Your task to perform on an android device: toggle sleep mode Image 0: 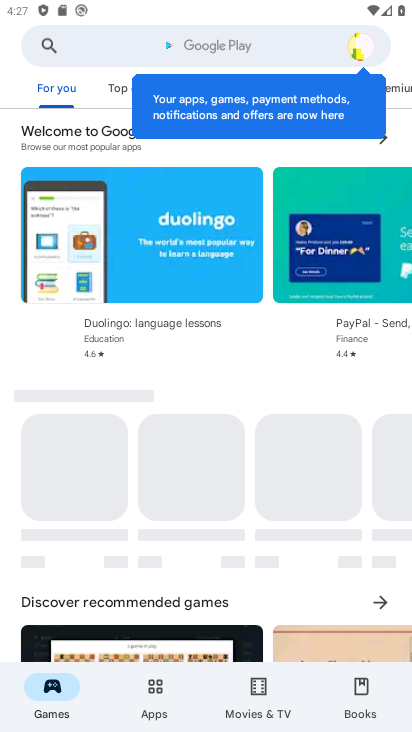
Step 0: press back button
Your task to perform on an android device: toggle sleep mode Image 1: 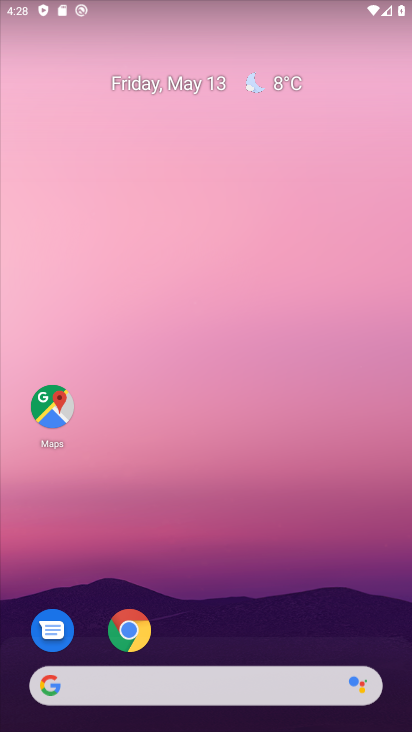
Step 1: drag from (163, 656) to (272, 172)
Your task to perform on an android device: toggle sleep mode Image 2: 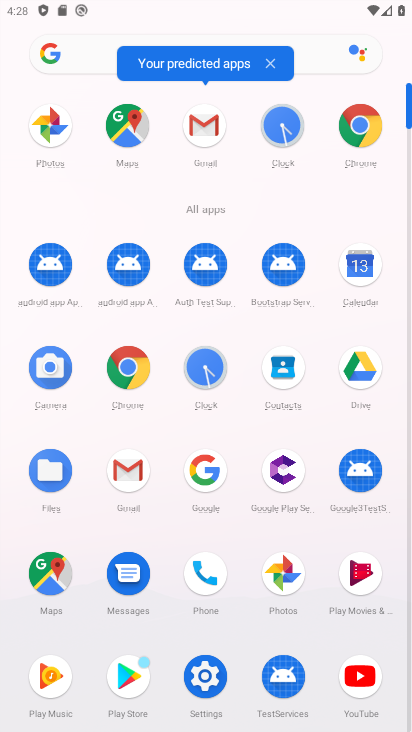
Step 2: drag from (148, 603) to (199, 368)
Your task to perform on an android device: toggle sleep mode Image 3: 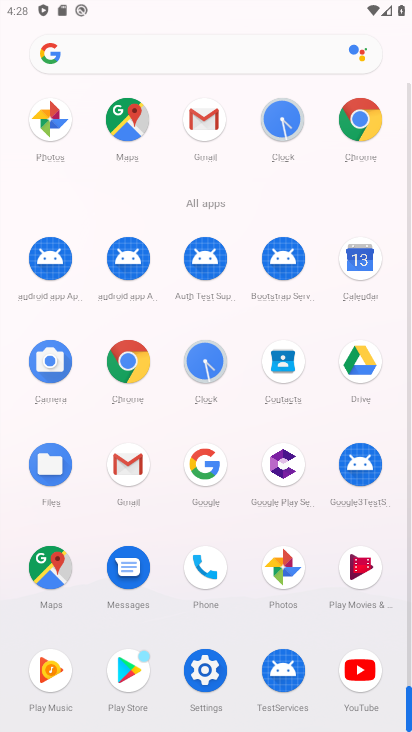
Step 3: click (194, 675)
Your task to perform on an android device: toggle sleep mode Image 4: 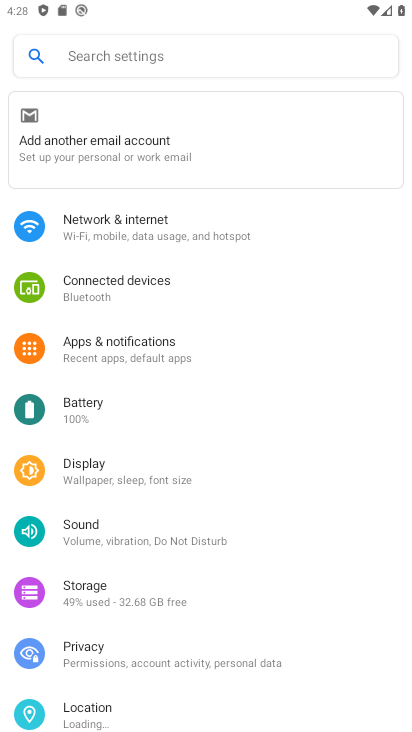
Step 4: click (104, 465)
Your task to perform on an android device: toggle sleep mode Image 5: 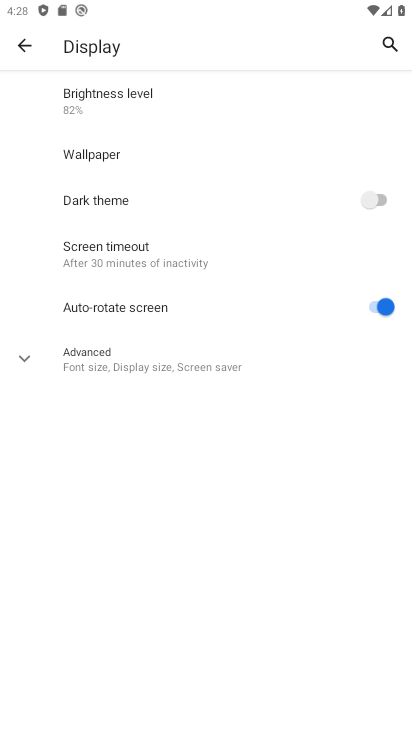
Step 5: click (186, 375)
Your task to perform on an android device: toggle sleep mode Image 6: 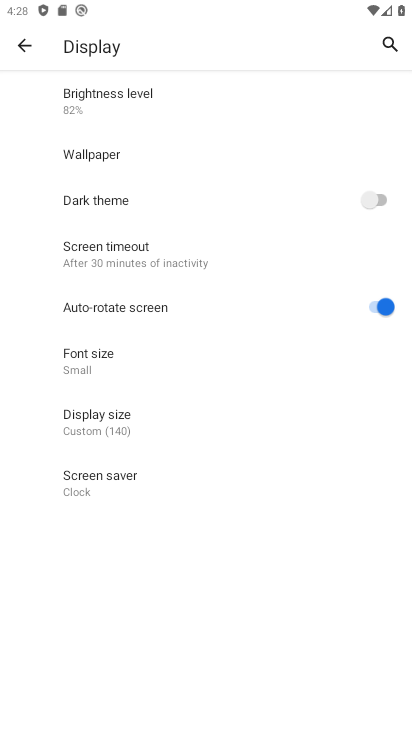
Step 6: task complete